Your task to perform on an android device: What's the weather going to be this weekend? Image 0: 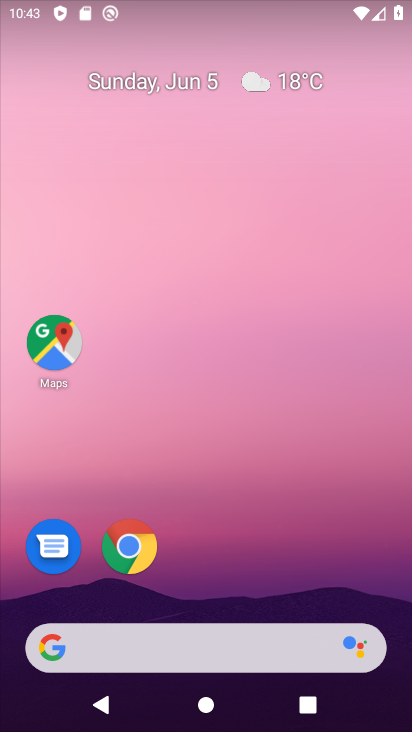
Step 0: type "w"
Your task to perform on an android device: What's the weather going to be this weekend? Image 1: 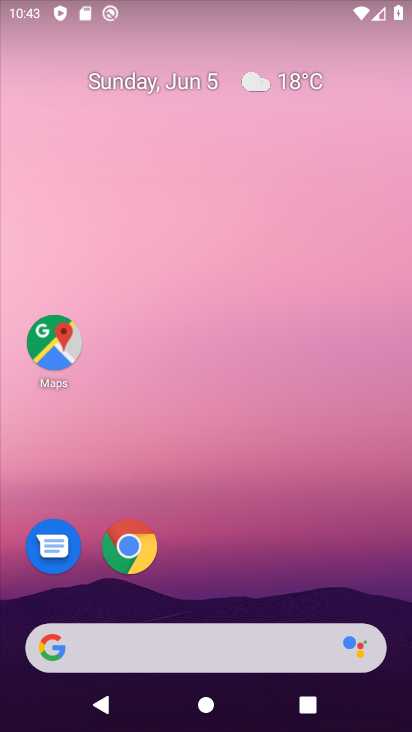
Step 1: click (216, 649)
Your task to perform on an android device: What's the weather going to be this weekend? Image 2: 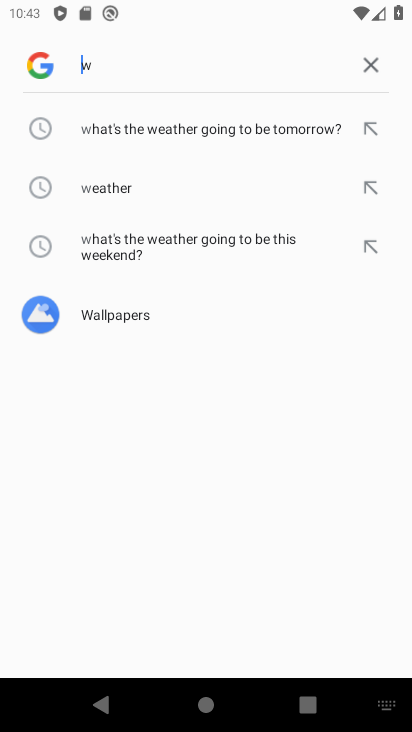
Step 2: click (369, 61)
Your task to perform on an android device: What's the weather going to be this weekend? Image 3: 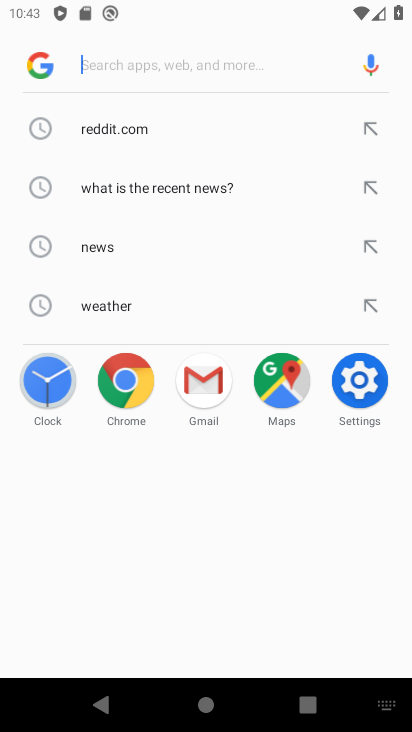
Step 3: type "weather this weekend"
Your task to perform on an android device: What's the weather going to be this weekend? Image 4: 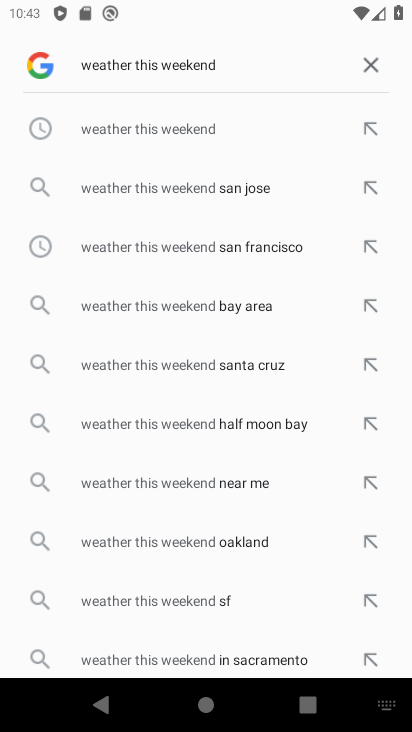
Step 4: click (180, 116)
Your task to perform on an android device: What's the weather going to be this weekend? Image 5: 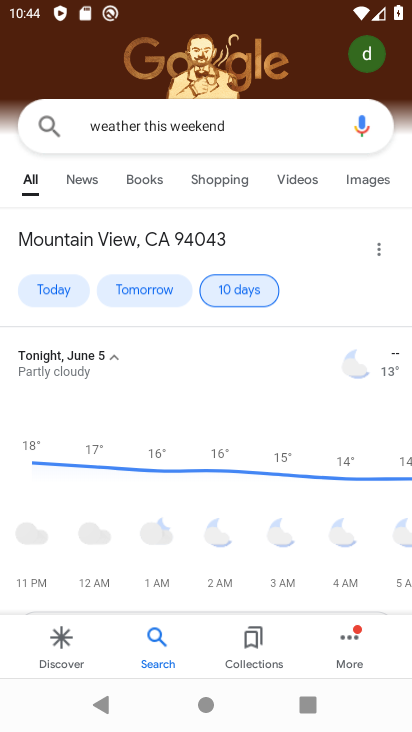
Step 5: task complete